Your task to perform on an android device: How much does a 3 bedroom apartment rent for in Chicago? Image 0: 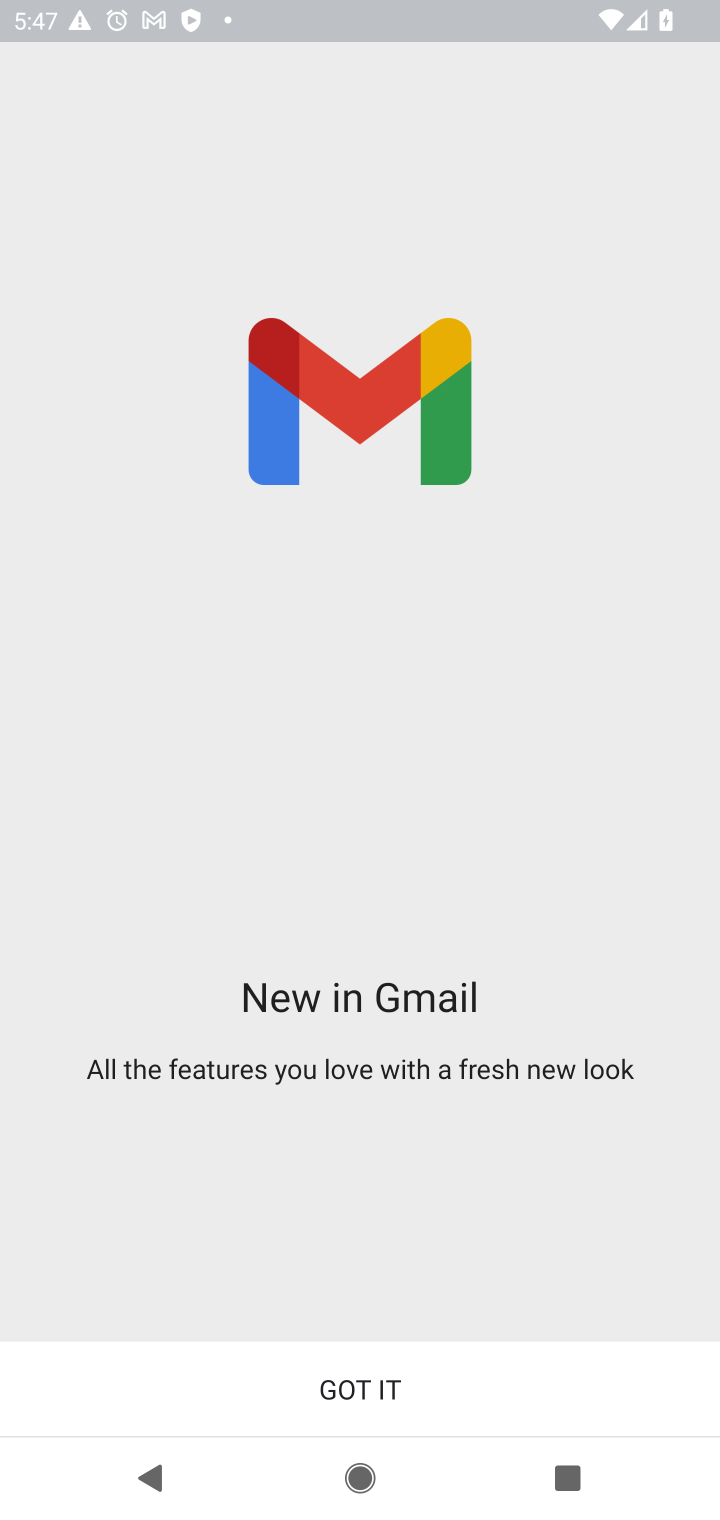
Step 0: press home button
Your task to perform on an android device: How much does a 3 bedroom apartment rent for in Chicago? Image 1: 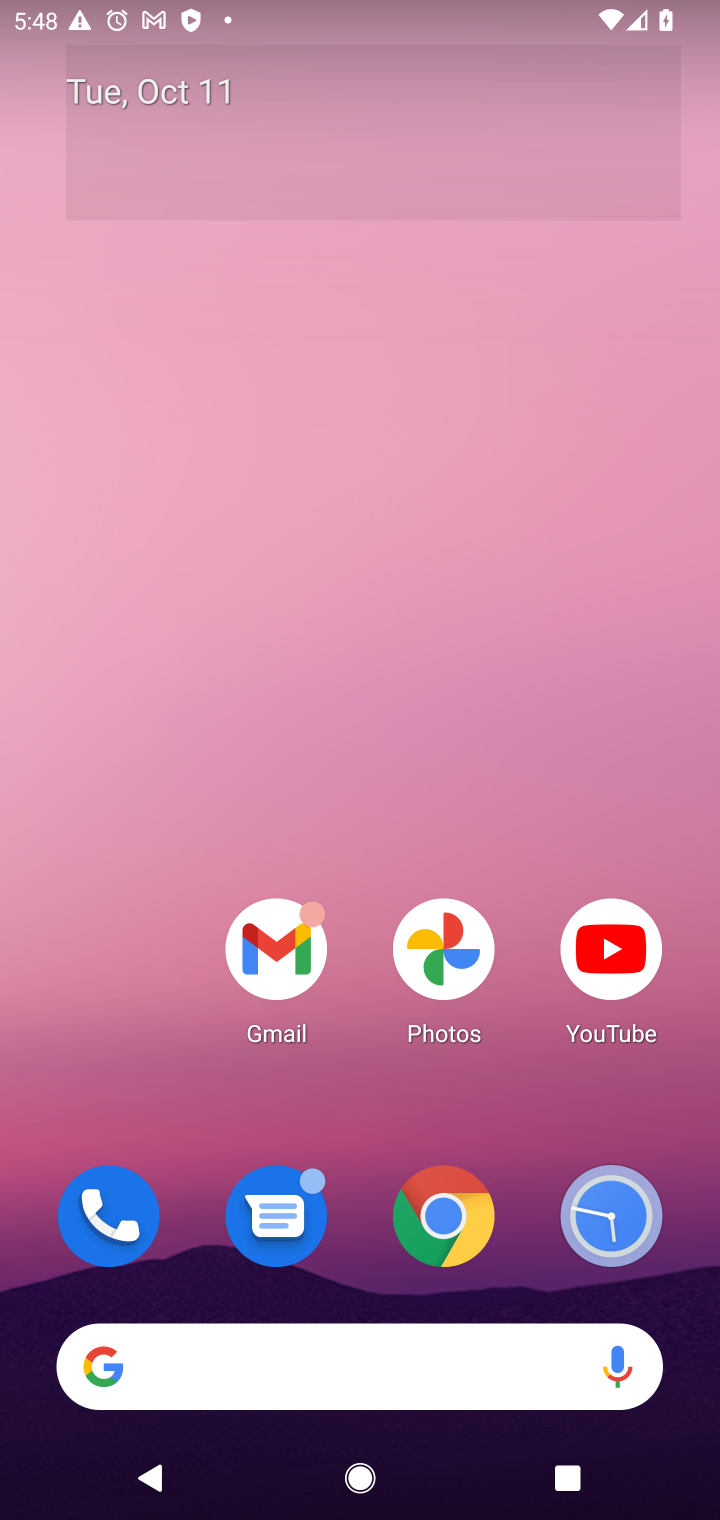
Step 1: click (423, 1214)
Your task to perform on an android device: How much does a 3 bedroom apartment rent for in Chicago? Image 2: 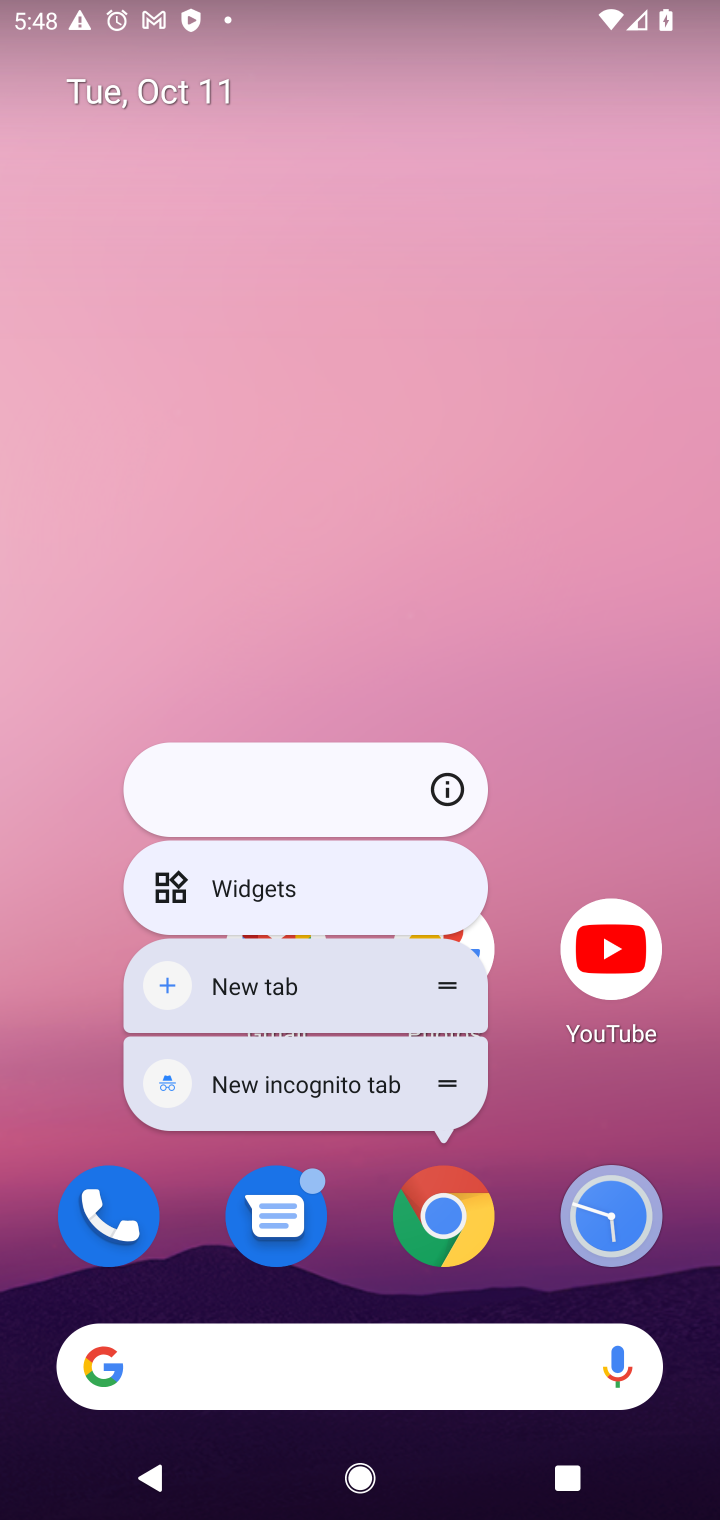
Step 2: click (423, 1214)
Your task to perform on an android device: How much does a 3 bedroom apartment rent for in Chicago? Image 3: 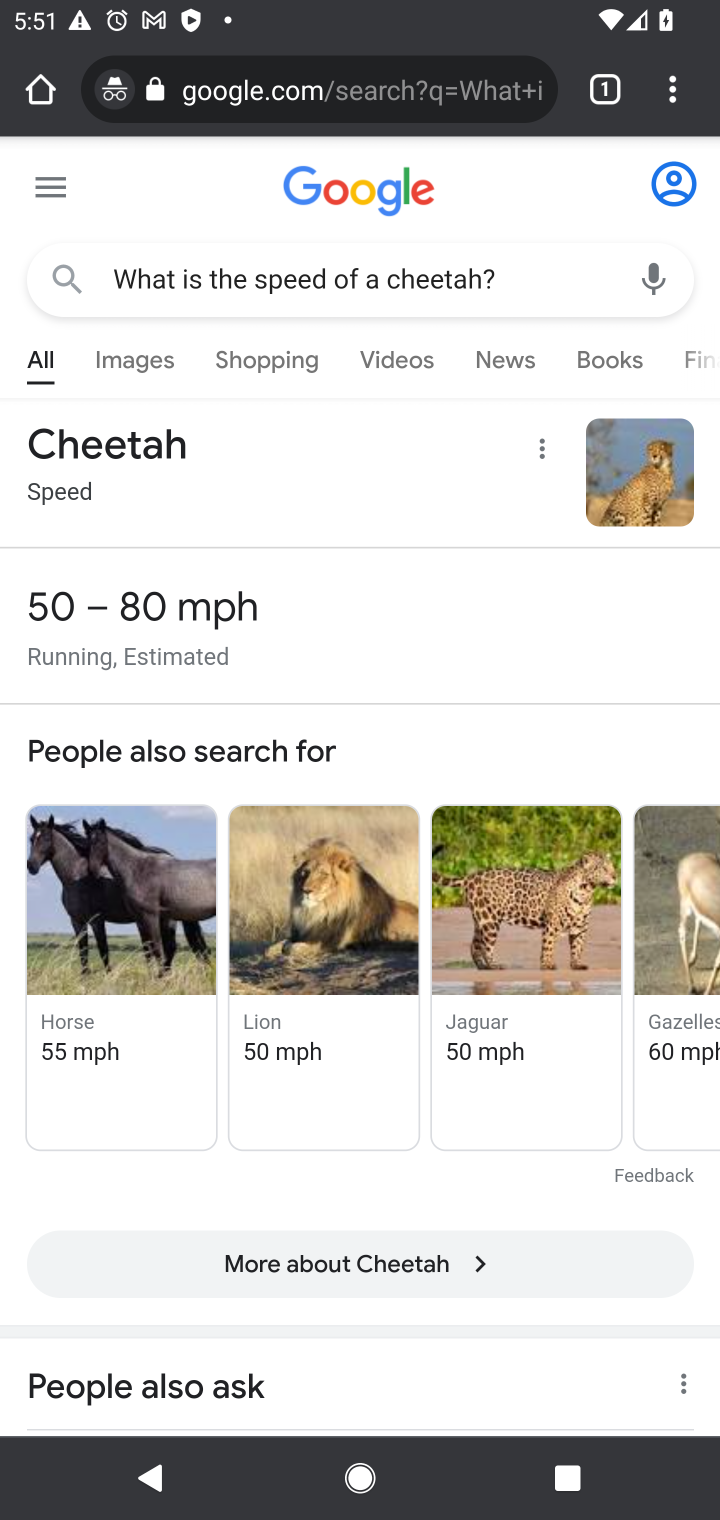
Step 3: click (560, 282)
Your task to perform on an android device: How much does a 3 bedroom apartment rent for in Chicago? Image 4: 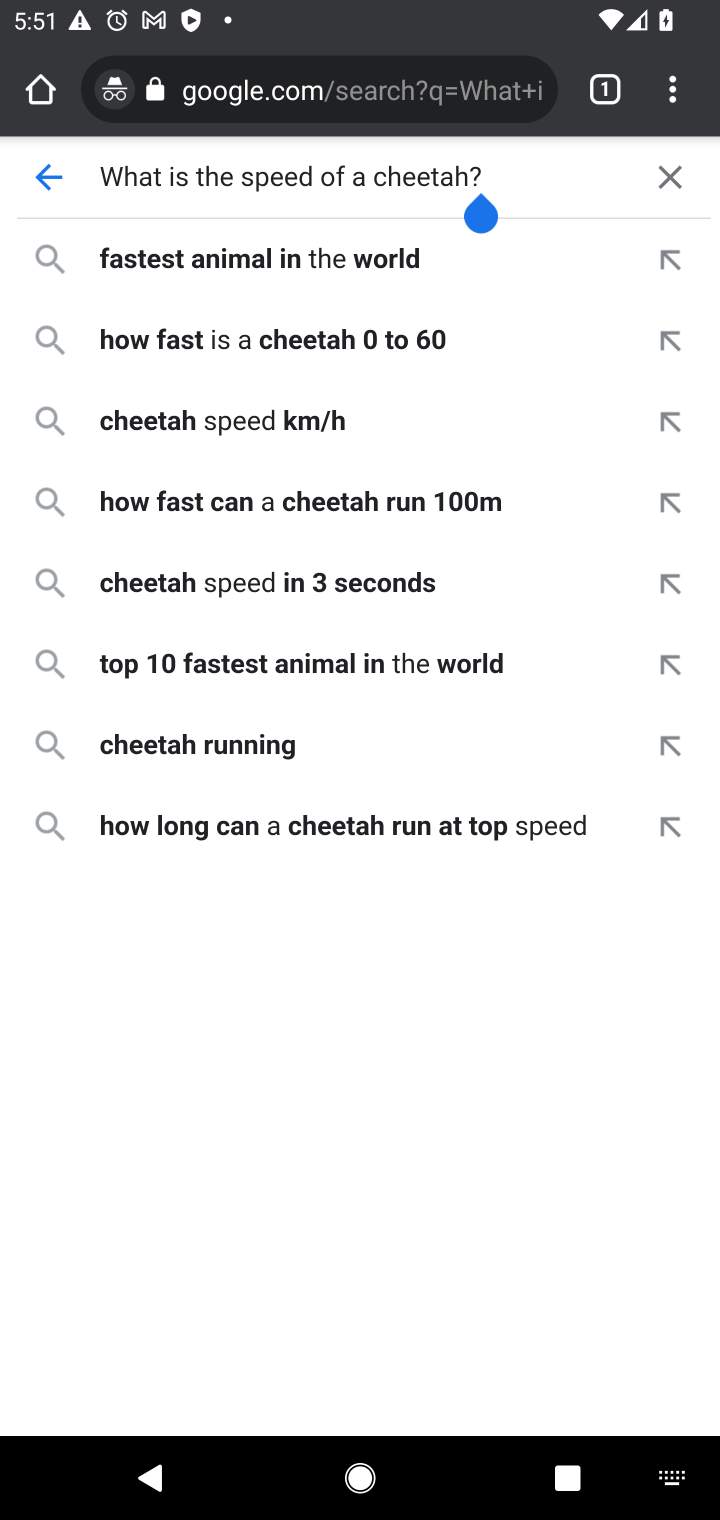
Step 4: click (664, 184)
Your task to perform on an android device: How much does a 3 bedroom apartment rent for in Chicago? Image 5: 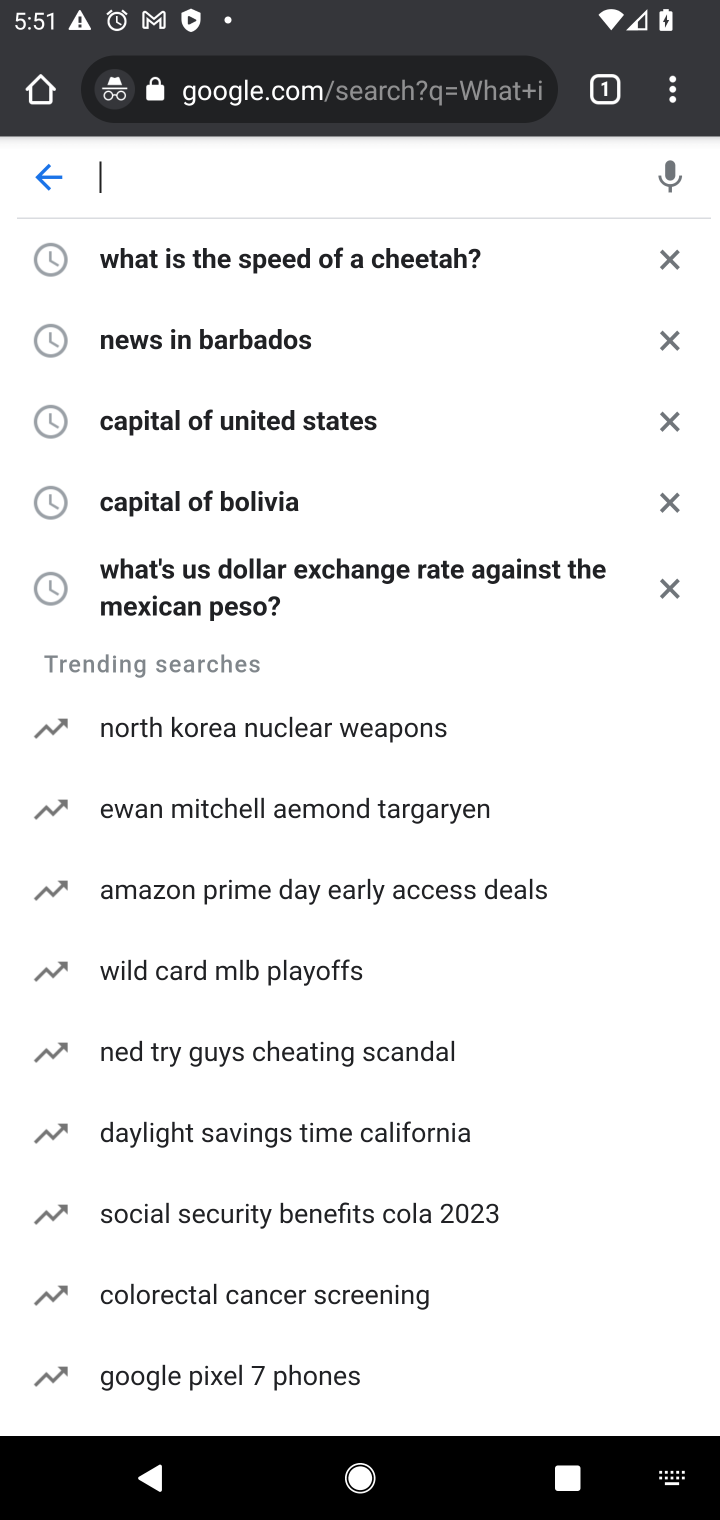
Step 5: type "How much does a 3 bedroom apartment rent for in Chicago?"
Your task to perform on an android device: How much does a 3 bedroom apartment rent for in Chicago? Image 6: 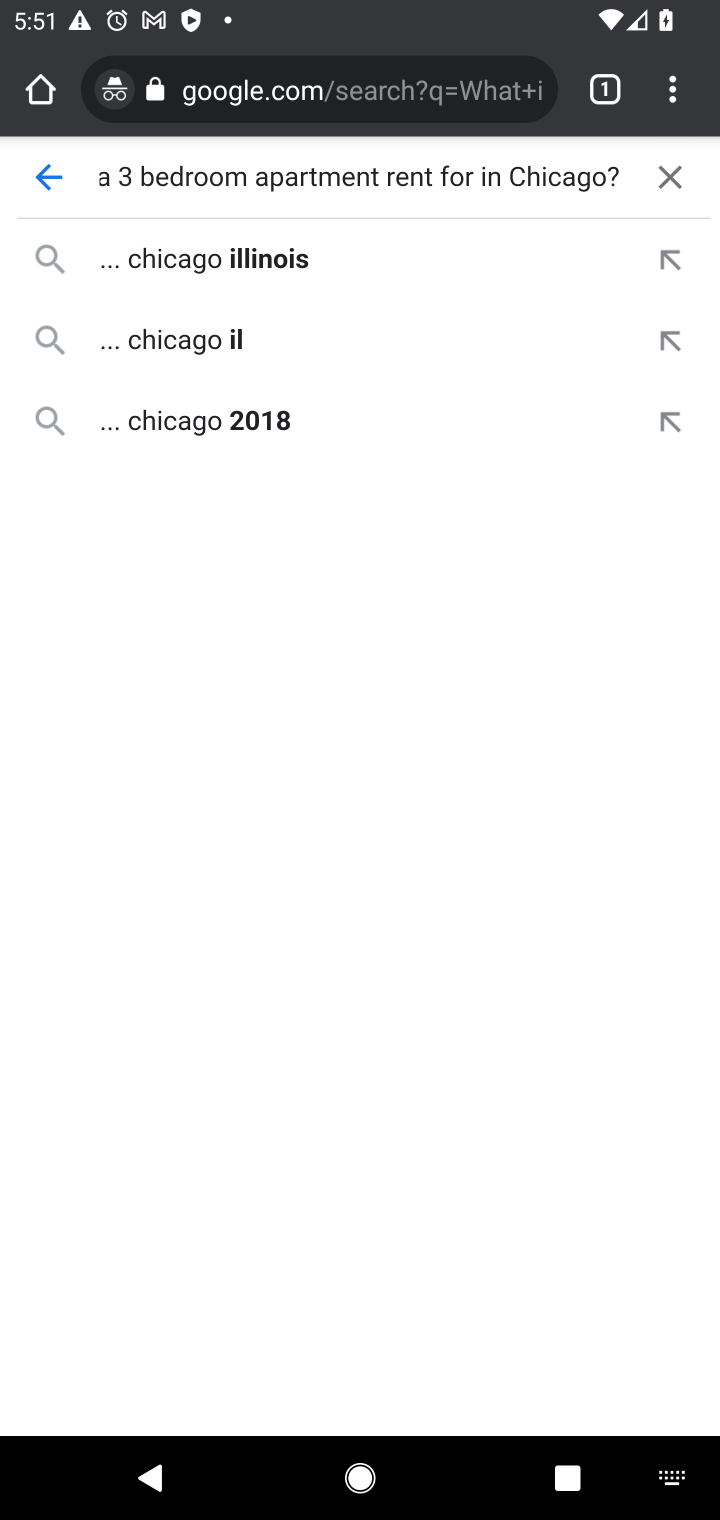
Step 6: press enter
Your task to perform on an android device: How much does a 3 bedroom apartment rent for in Chicago? Image 7: 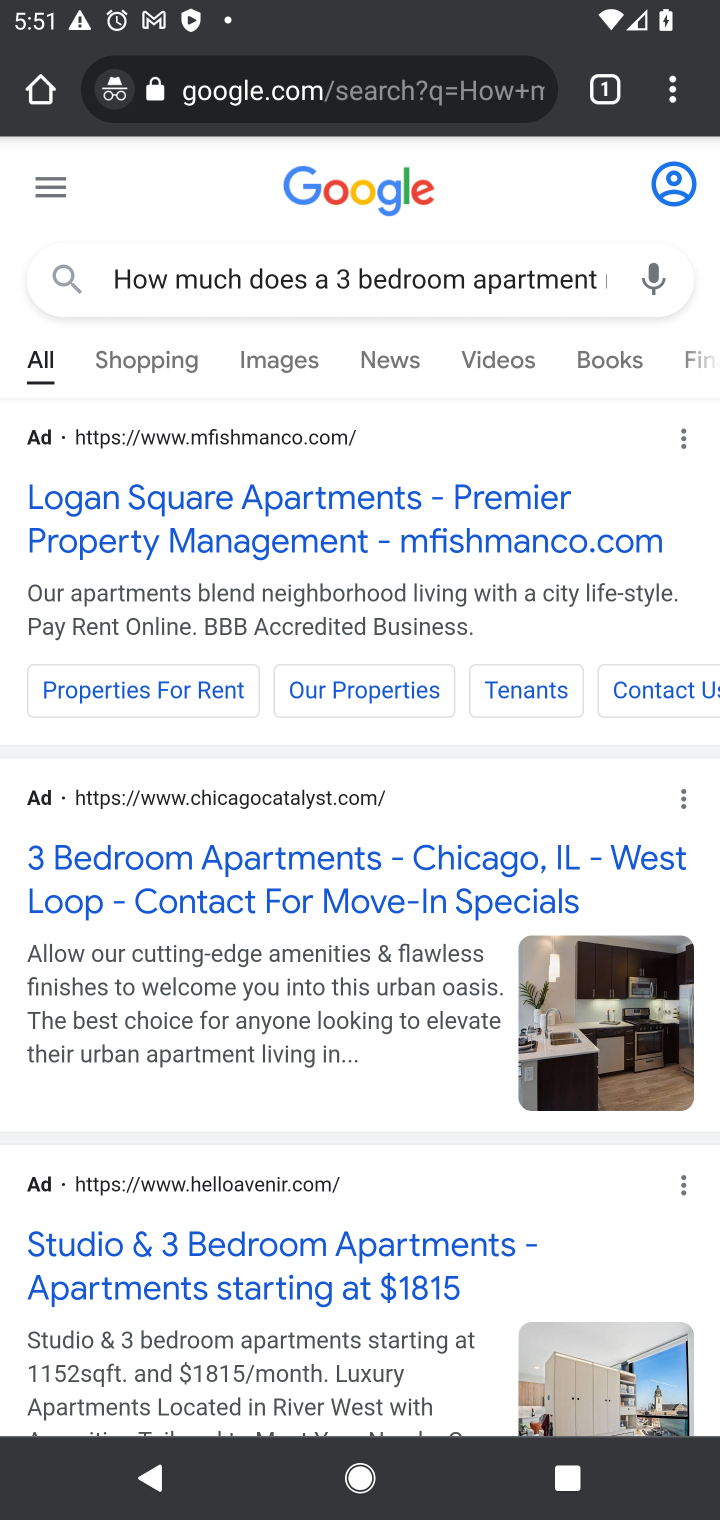
Step 7: drag from (219, 1336) to (306, 650)
Your task to perform on an android device: How much does a 3 bedroom apartment rent for in Chicago? Image 8: 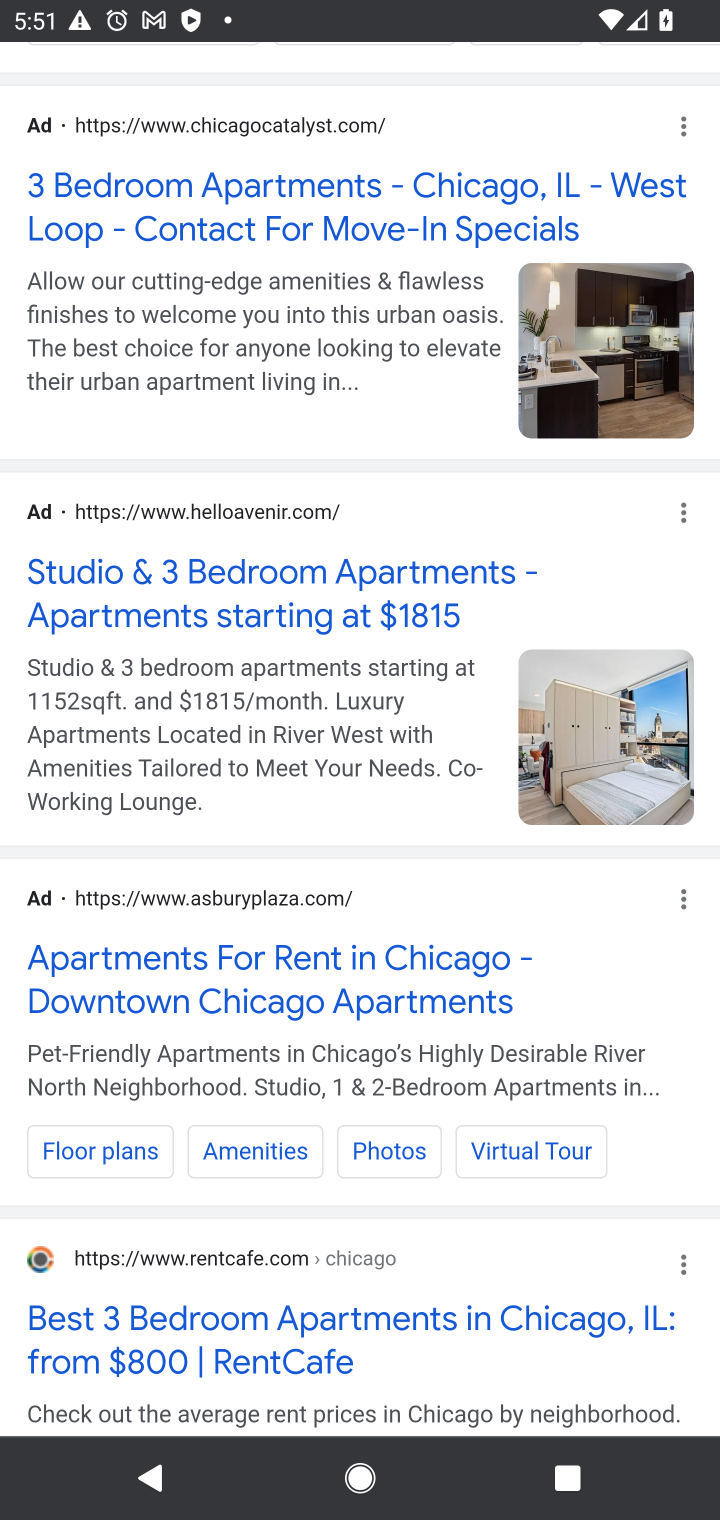
Step 8: click (358, 1330)
Your task to perform on an android device: How much does a 3 bedroom apartment rent for in Chicago? Image 9: 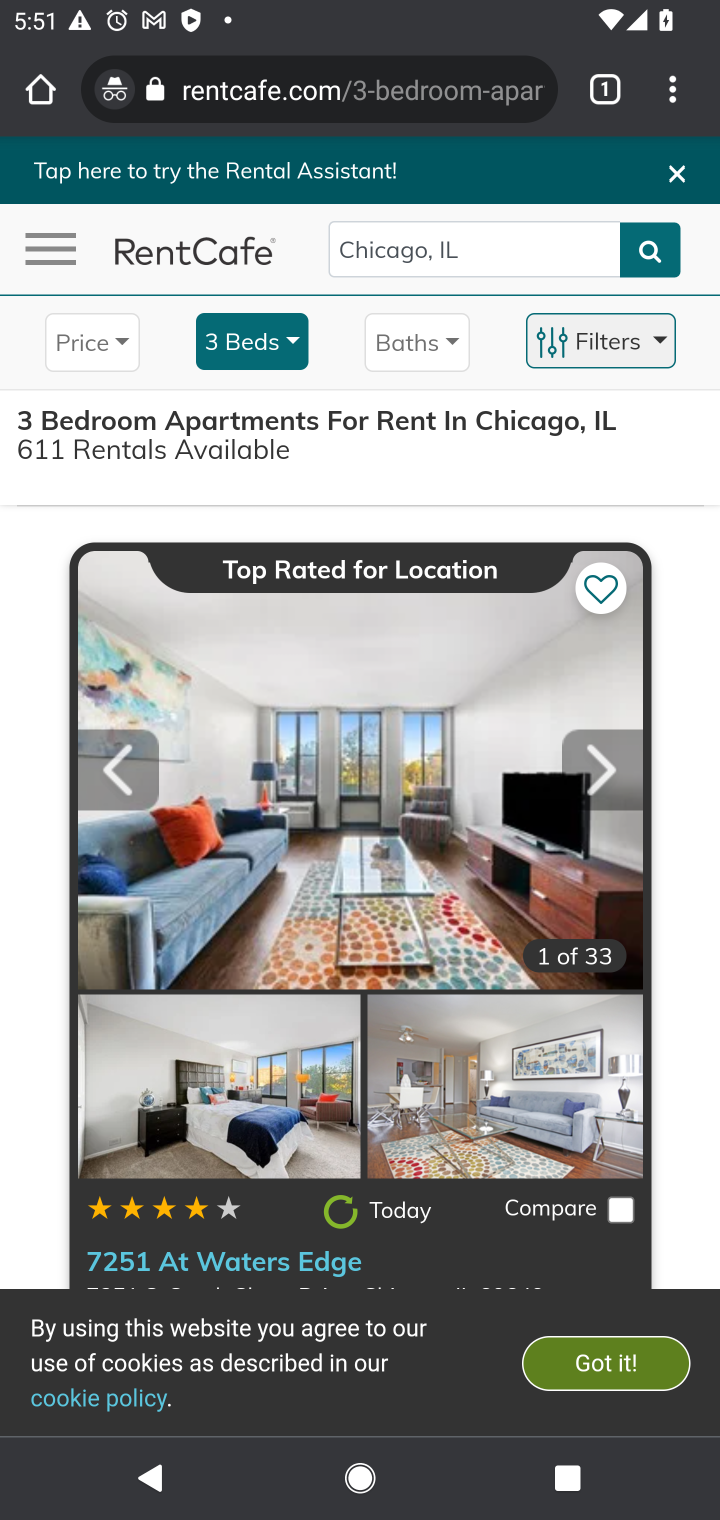
Step 9: task complete